Your task to perform on an android device: change the clock display to show seconds Image 0: 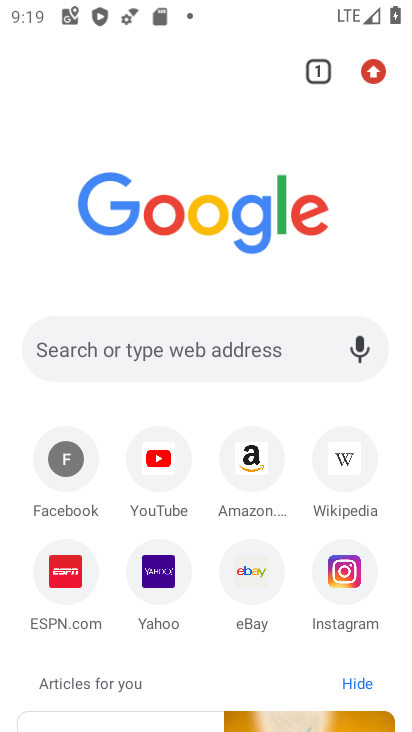
Step 0: press home button
Your task to perform on an android device: change the clock display to show seconds Image 1: 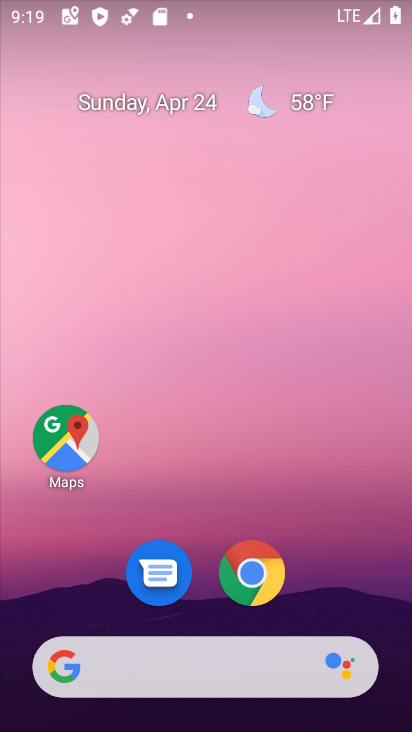
Step 1: drag from (340, 498) to (323, 232)
Your task to perform on an android device: change the clock display to show seconds Image 2: 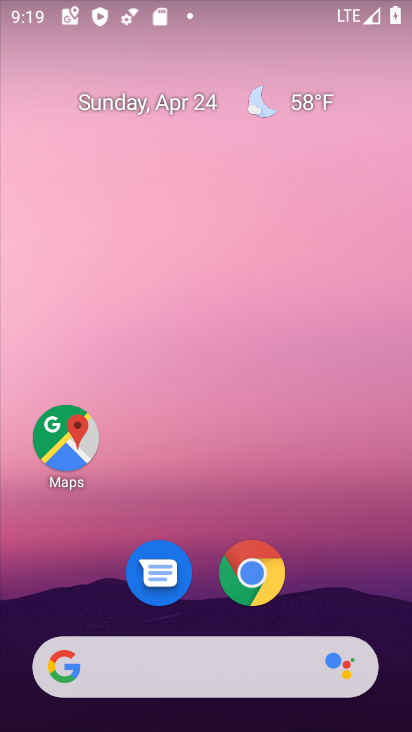
Step 2: drag from (343, 601) to (303, 123)
Your task to perform on an android device: change the clock display to show seconds Image 3: 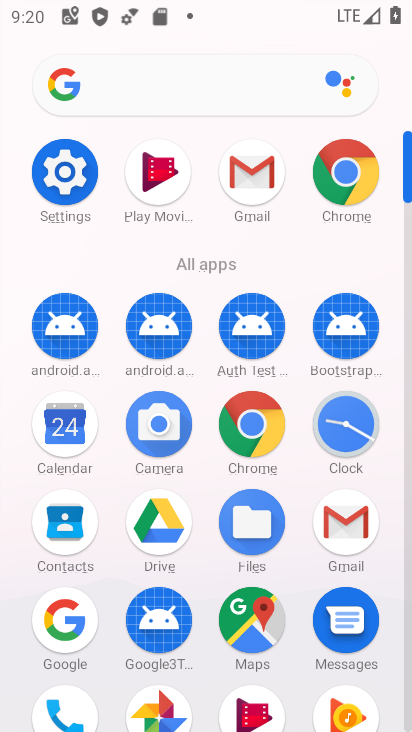
Step 3: click (341, 425)
Your task to perform on an android device: change the clock display to show seconds Image 4: 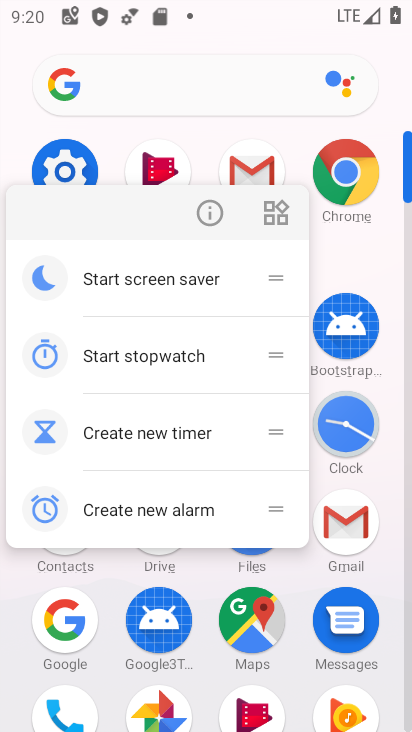
Step 4: click (341, 425)
Your task to perform on an android device: change the clock display to show seconds Image 5: 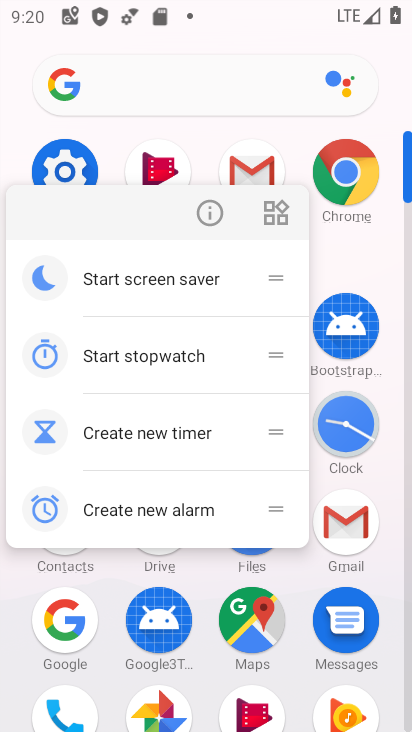
Step 5: click (357, 429)
Your task to perform on an android device: change the clock display to show seconds Image 6: 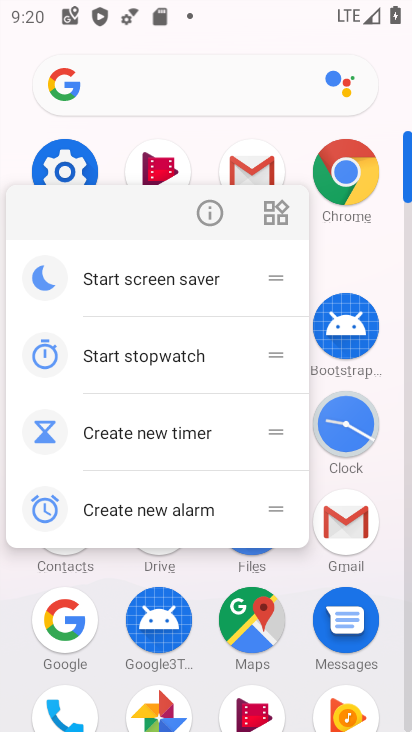
Step 6: click (347, 434)
Your task to perform on an android device: change the clock display to show seconds Image 7: 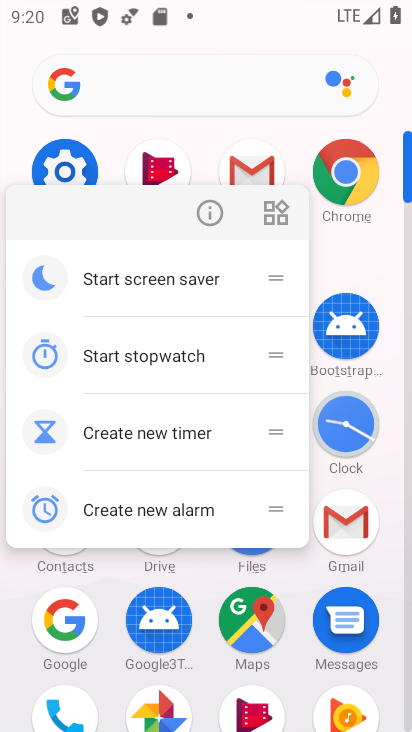
Step 7: click (383, 419)
Your task to perform on an android device: change the clock display to show seconds Image 8: 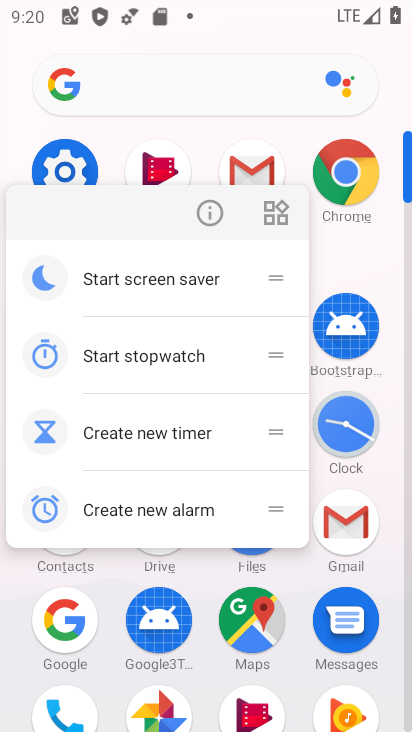
Step 8: click (342, 421)
Your task to perform on an android device: change the clock display to show seconds Image 9: 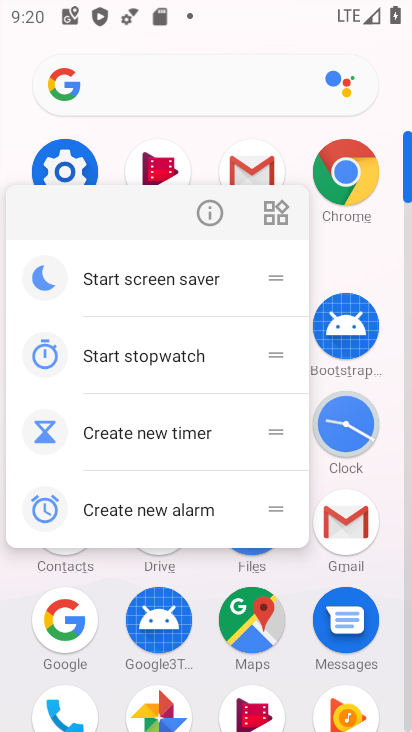
Step 9: click (382, 474)
Your task to perform on an android device: change the clock display to show seconds Image 10: 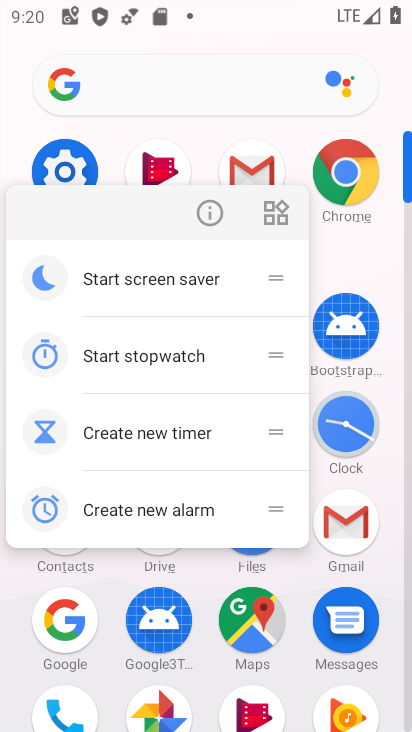
Step 10: click (334, 424)
Your task to perform on an android device: change the clock display to show seconds Image 11: 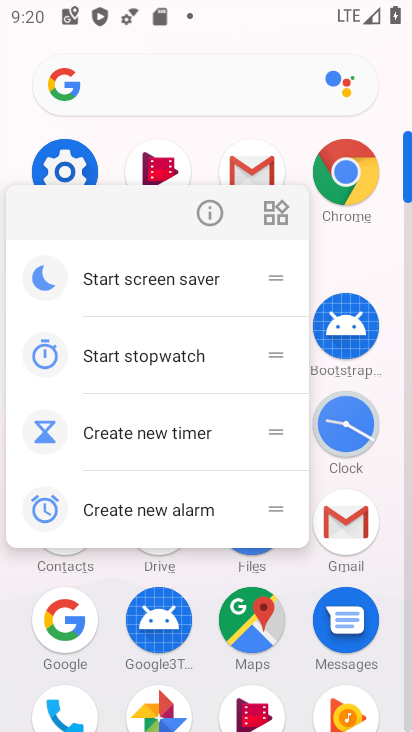
Step 11: click (372, 465)
Your task to perform on an android device: change the clock display to show seconds Image 12: 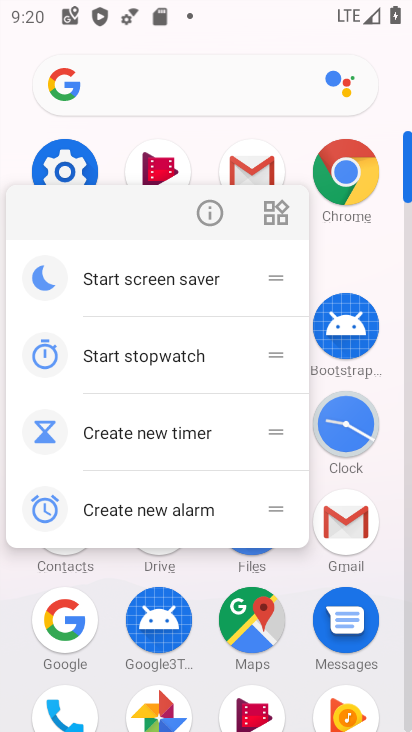
Step 12: click (295, 572)
Your task to perform on an android device: change the clock display to show seconds Image 13: 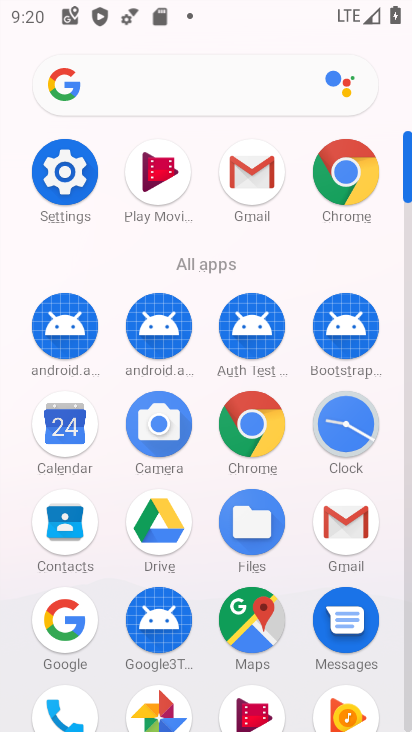
Step 13: click (344, 426)
Your task to perform on an android device: change the clock display to show seconds Image 14: 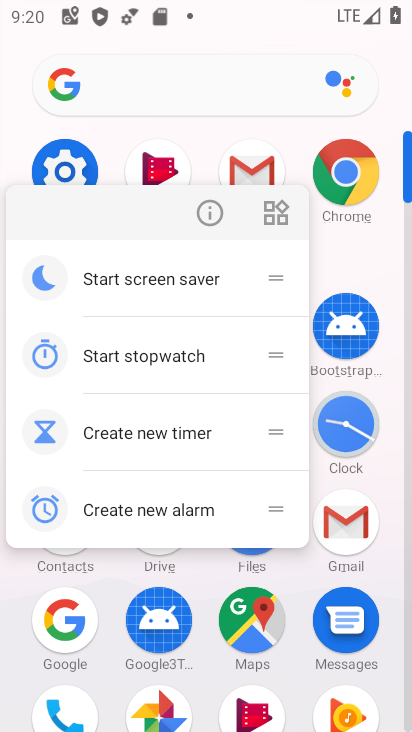
Step 14: click (324, 428)
Your task to perform on an android device: change the clock display to show seconds Image 15: 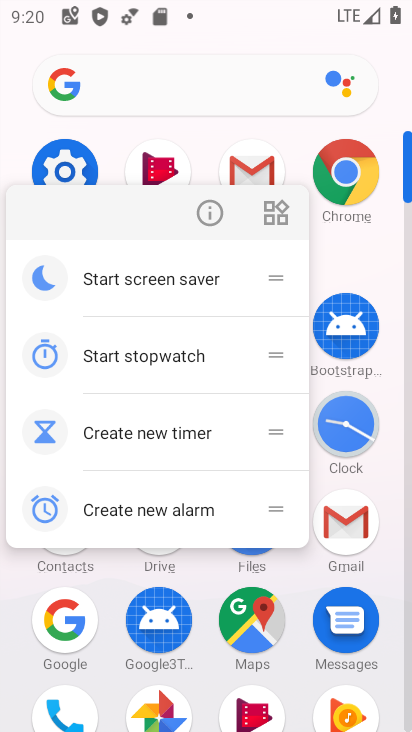
Step 15: click (287, 590)
Your task to perform on an android device: change the clock display to show seconds Image 16: 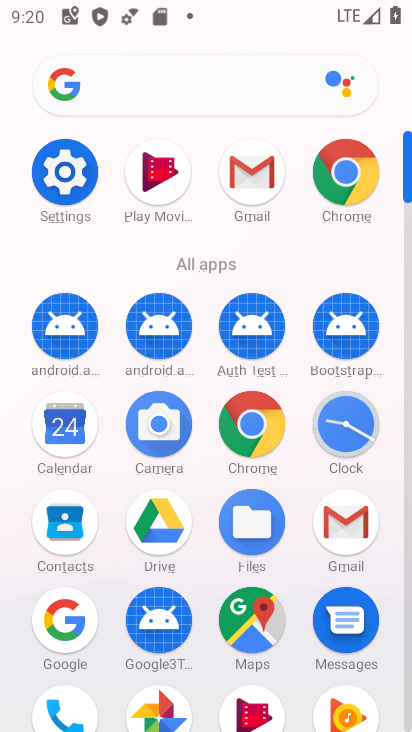
Step 16: click (363, 421)
Your task to perform on an android device: change the clock display to show seconds Image 17: 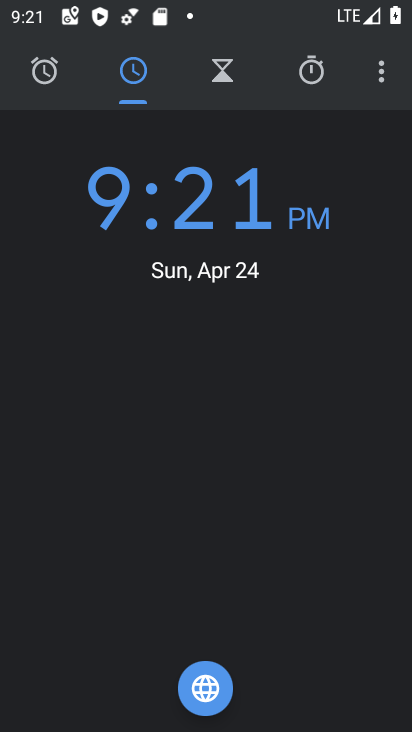
Step 17: click (379, 69)
Your task to perform on an android device: change the clock display to show seconds Image 18: 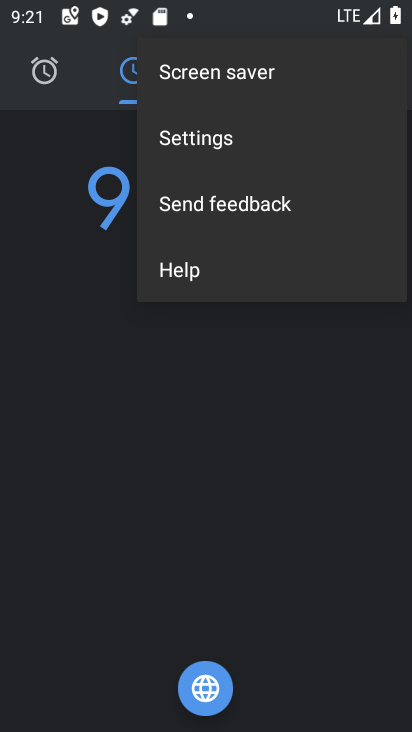
Step 18: click (255, 150)
Your task to perform on an android device: change the clock display to show seconds Image 19: 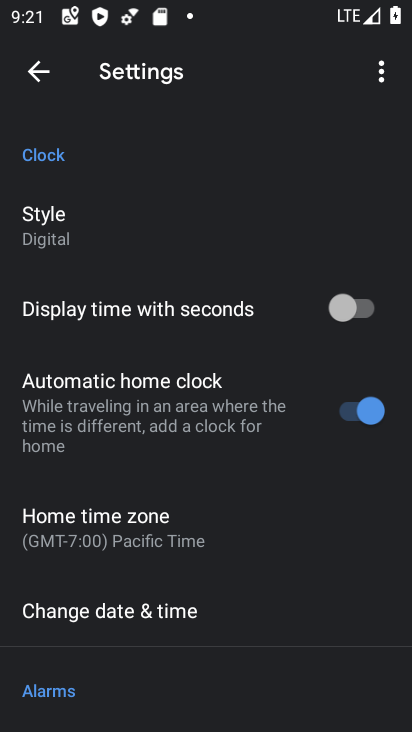
Step 19: click (345, 313)
Your task to perform on an android device: change the clock display to show seconds Image 20: 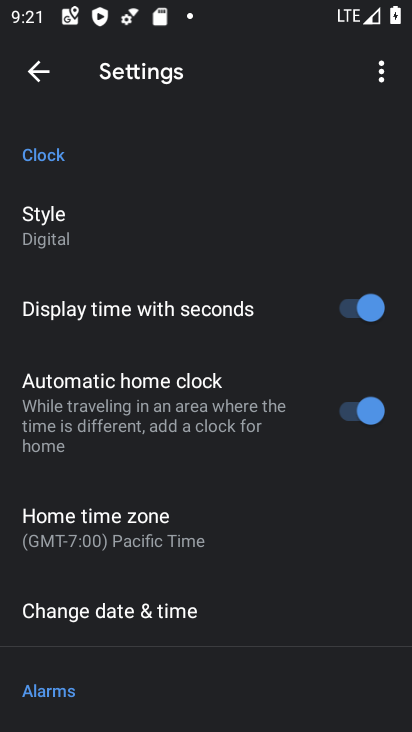
Step 20: task complete